Your task to perform on an android device: Add "razer huntsman" to the cart on amazon Image 0: 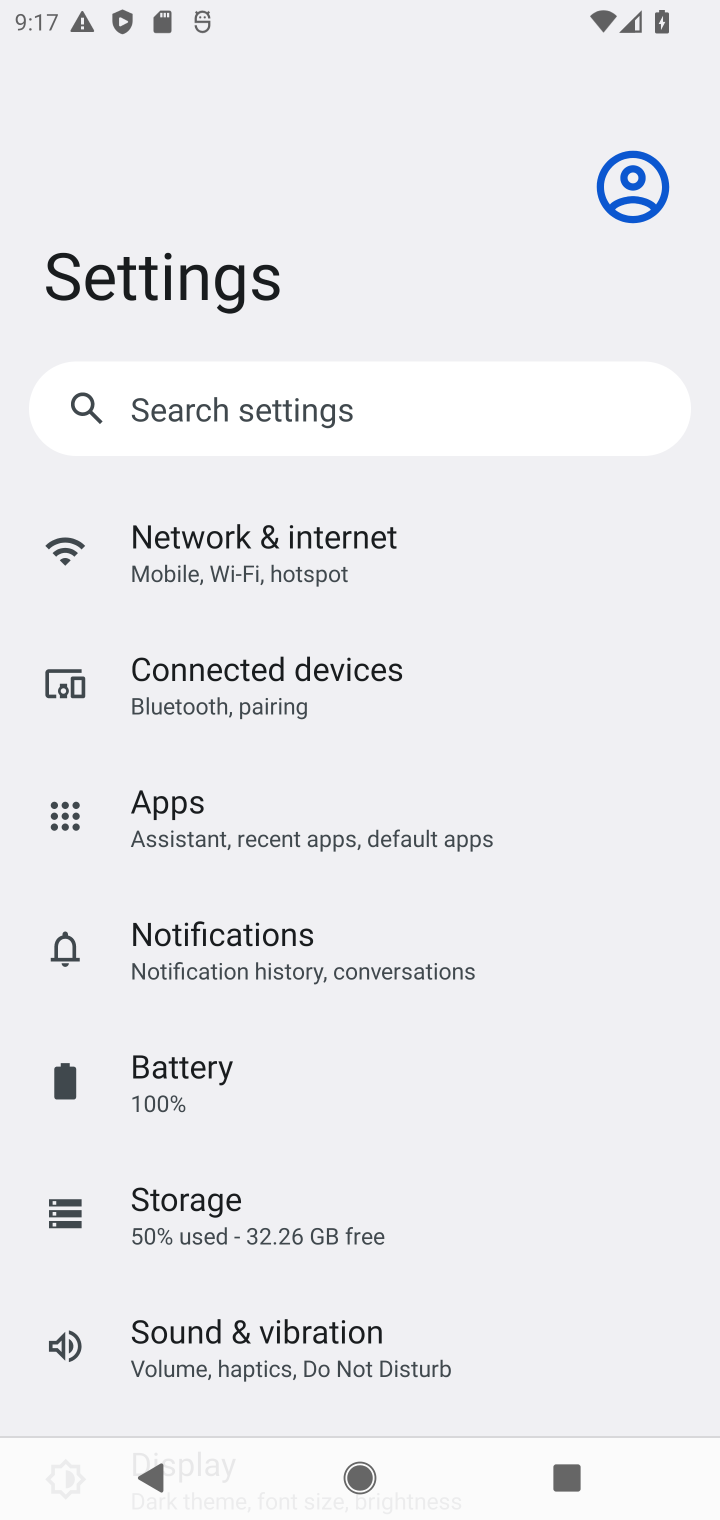
Step 0: press home button
Your task to perform on an android device: Add "razer huntsman" to the cart on amazon Image 1: 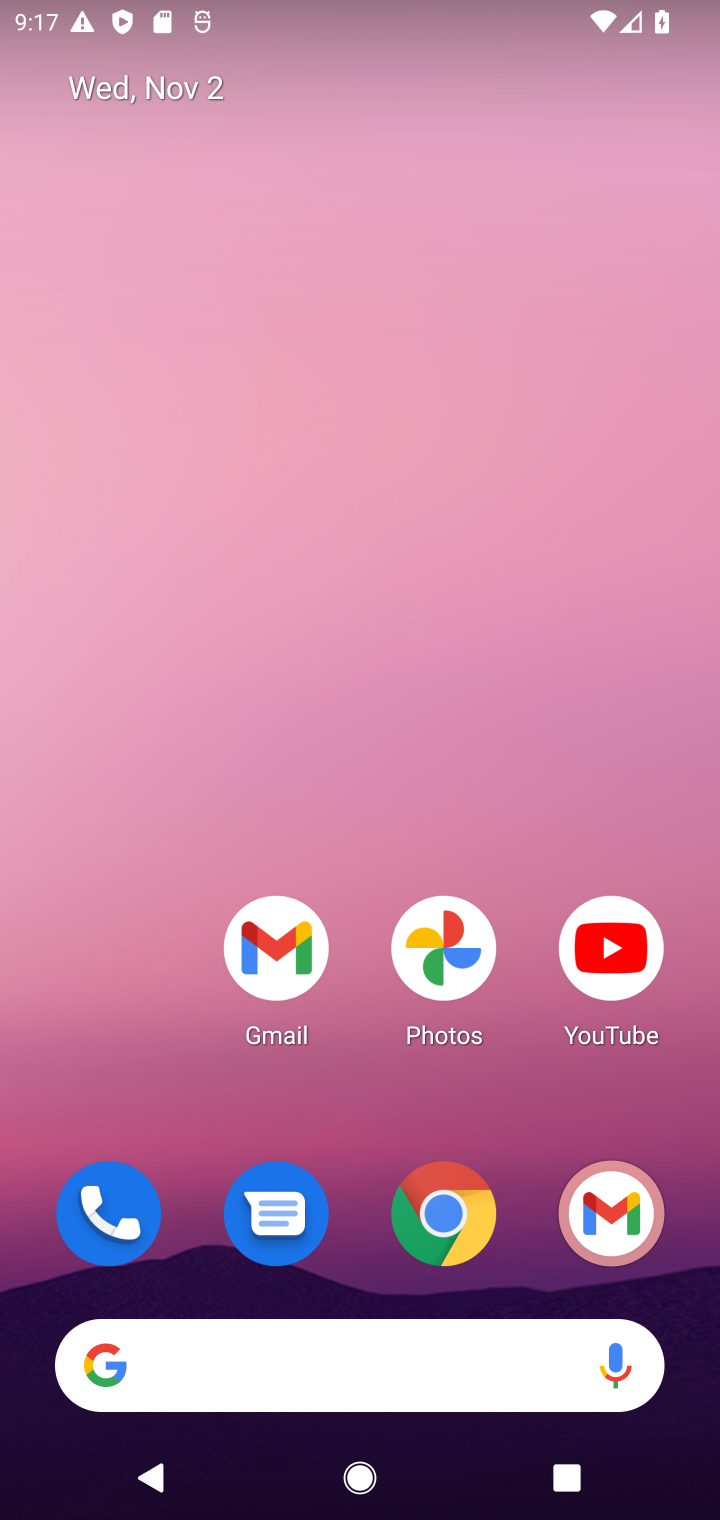
Step 1: click (422, 1237)
Your task to perform on an android device: Add "razer huntsman" to the cart on amazon Image 2: 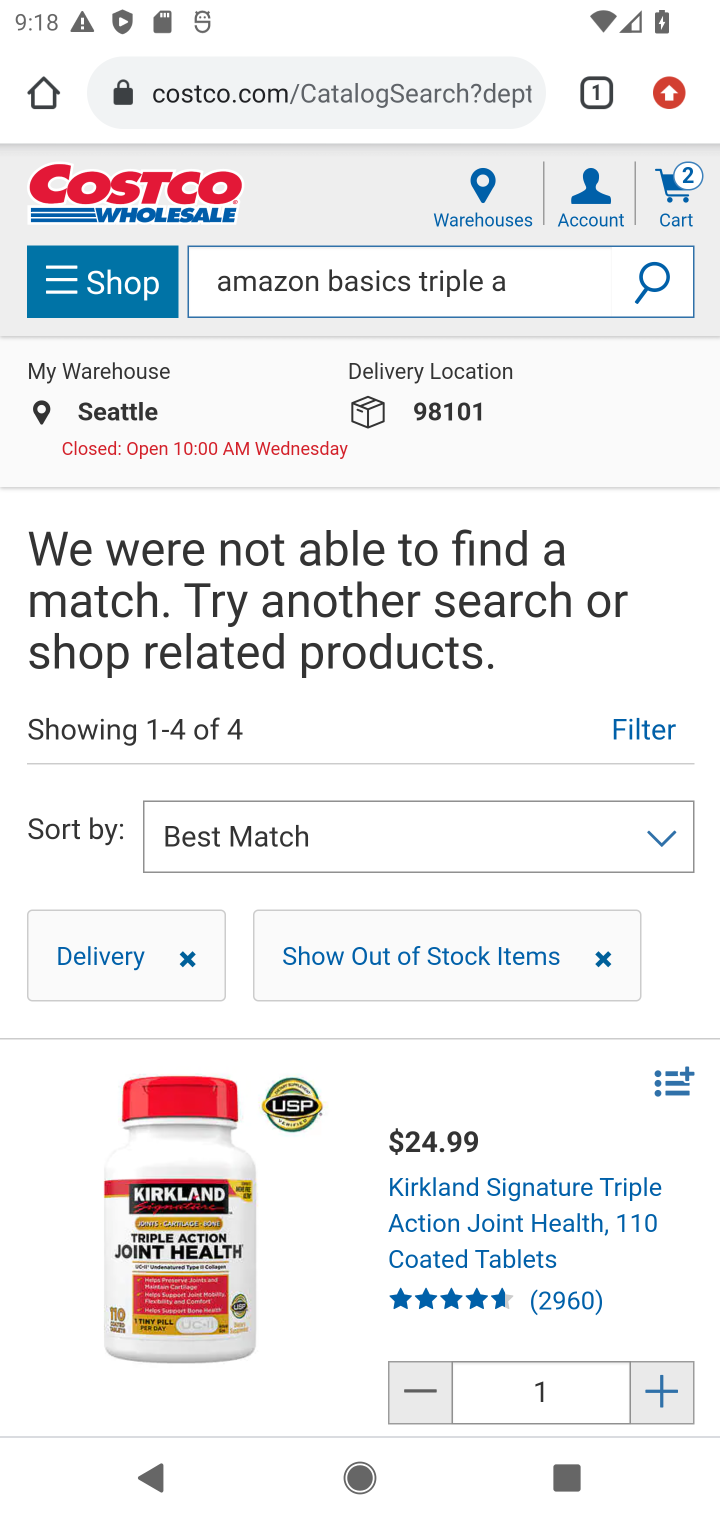
Step 2: click (296, 108)
Your task to perform on an android device: Add "razer huntsman" to the cart on amazon Image 3: 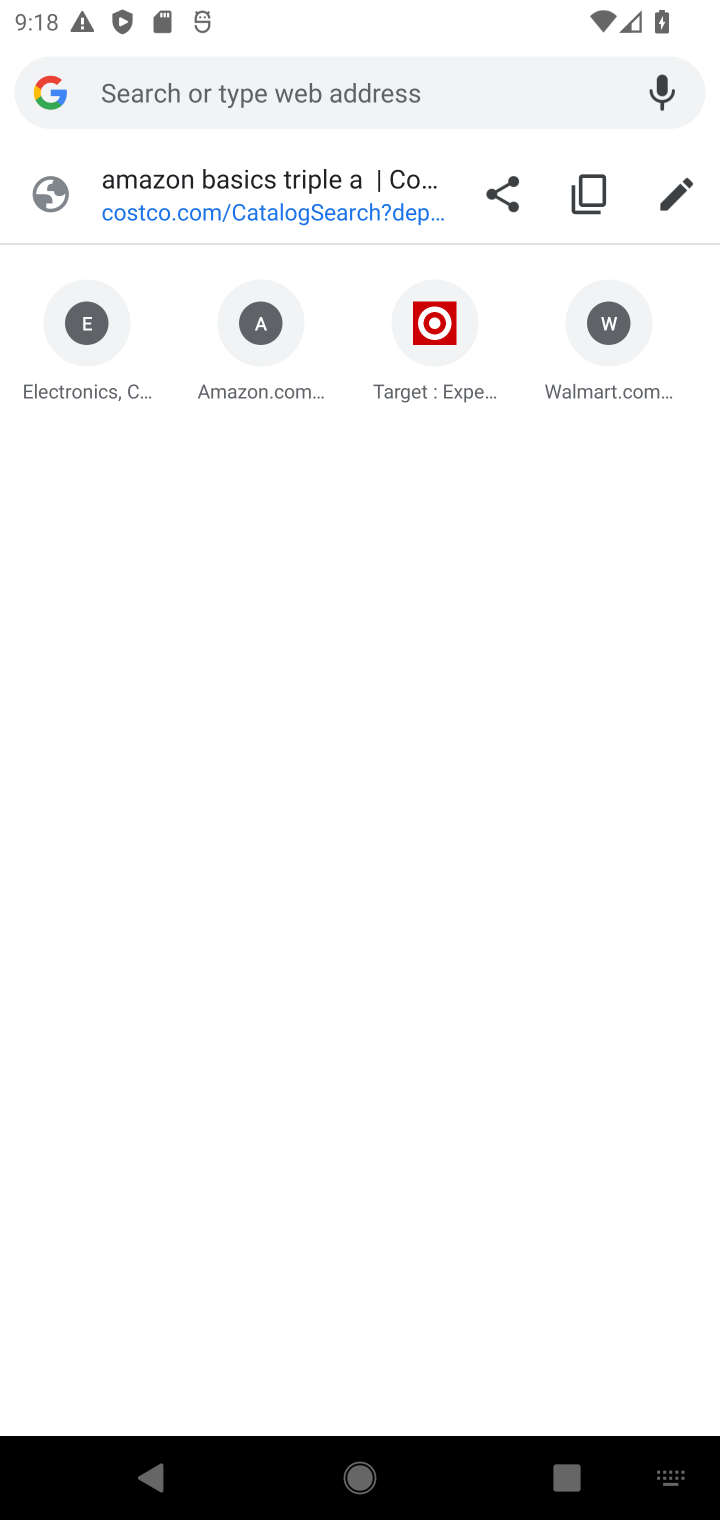
Step 3: click (252, 321)
Your task to perform on an android device: Add "razer huntsman" to the cart on amazon Image 4: 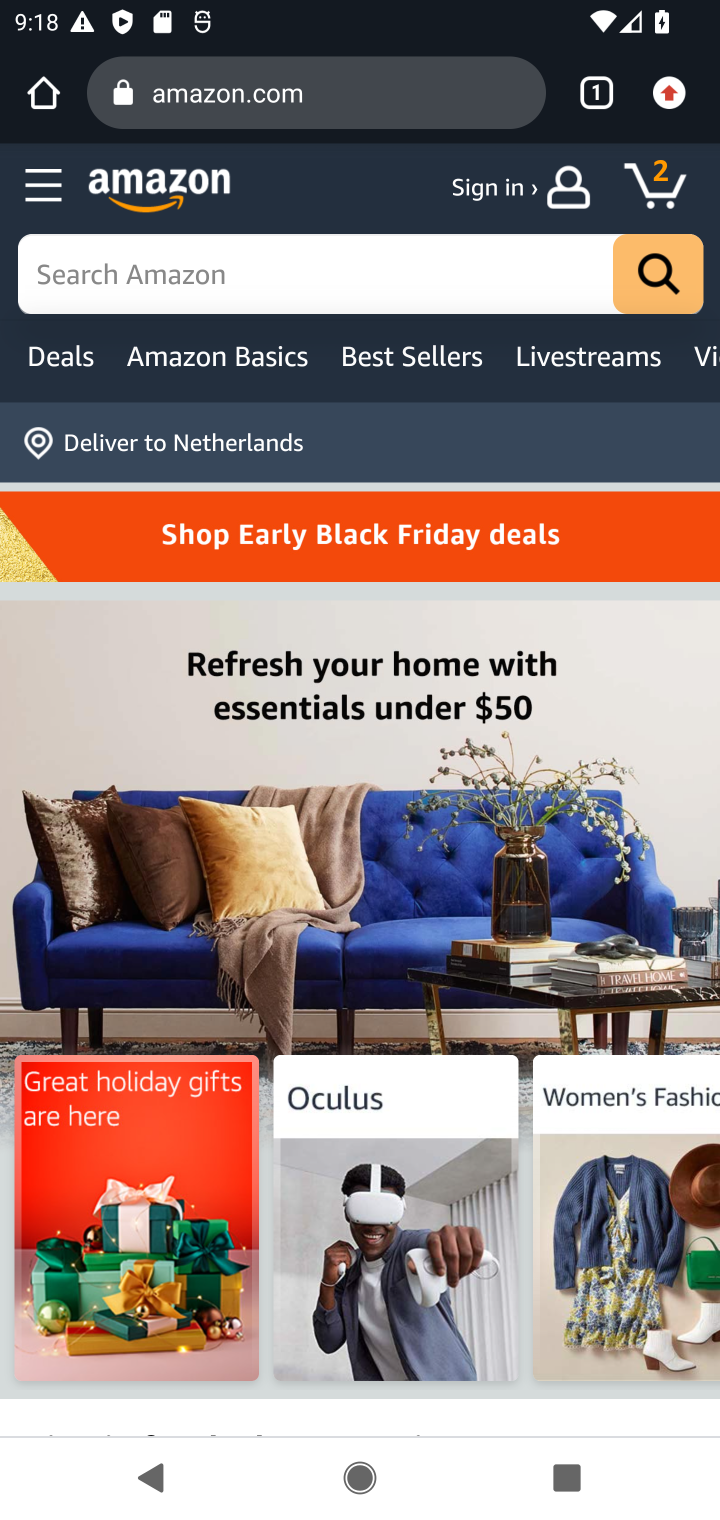
Step 4: click (199, 280)
Your task to perform on an android device: Add "razer huntsman" to the cart on amazon Image 5: 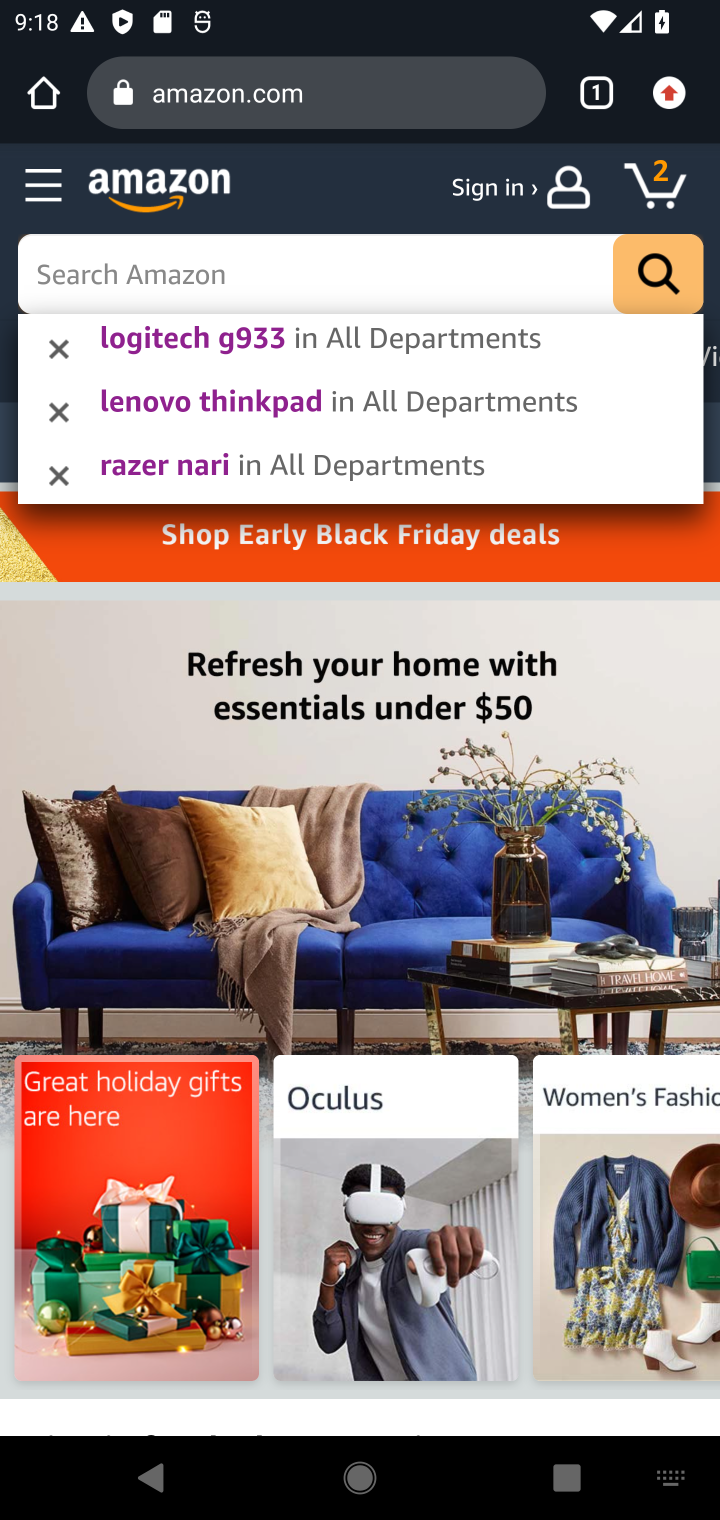
Step 5: type "razer huntsman"
Your task to perform on an android device: Add "razer huntsman" to the cart on amazon Image 6: 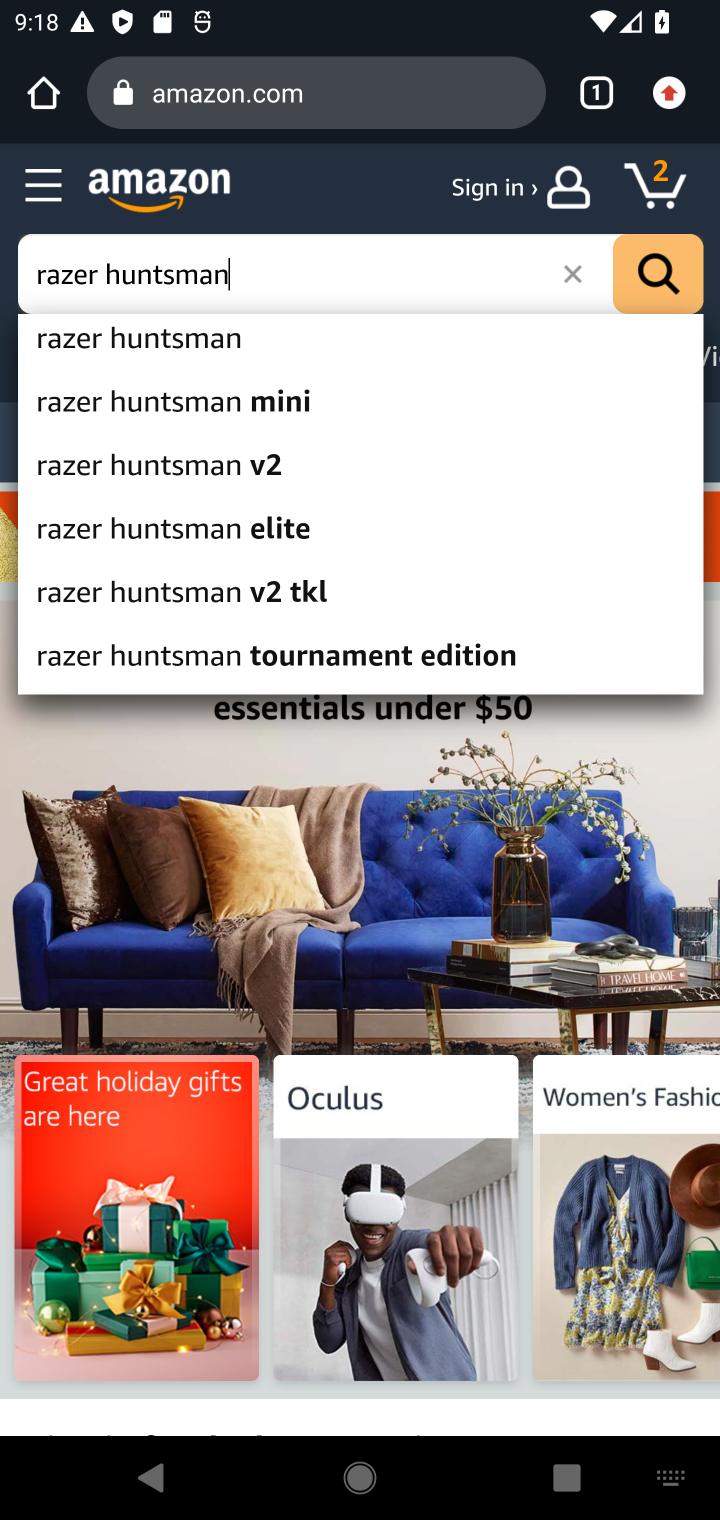
Step 6: click (193, 347)
Your task to perform on an android device: Add "razer huntsman" to the cart on amazon Image 7: 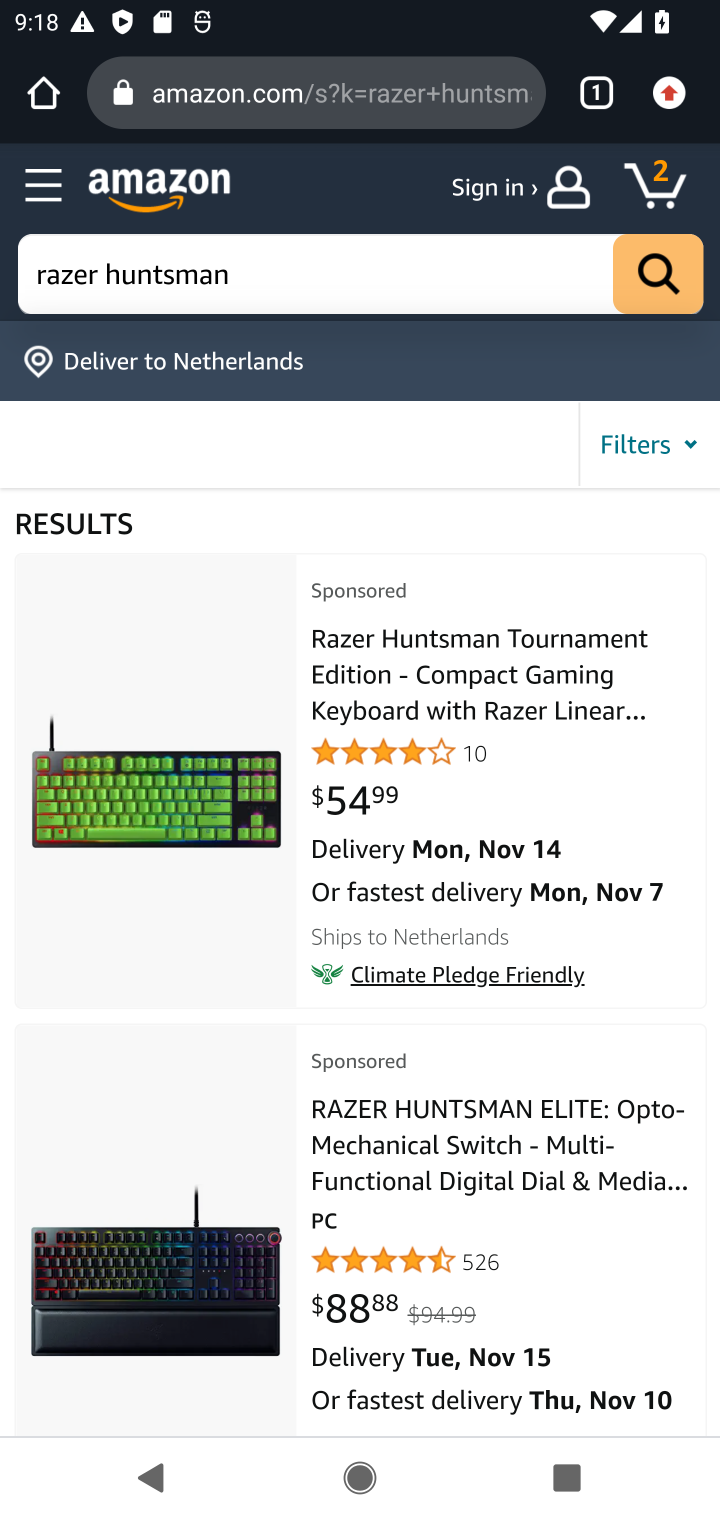
Step 7: click (283, 839)
Your task to perform on an android device: Add "razer huntsman" to the cart on amazon Image 8: 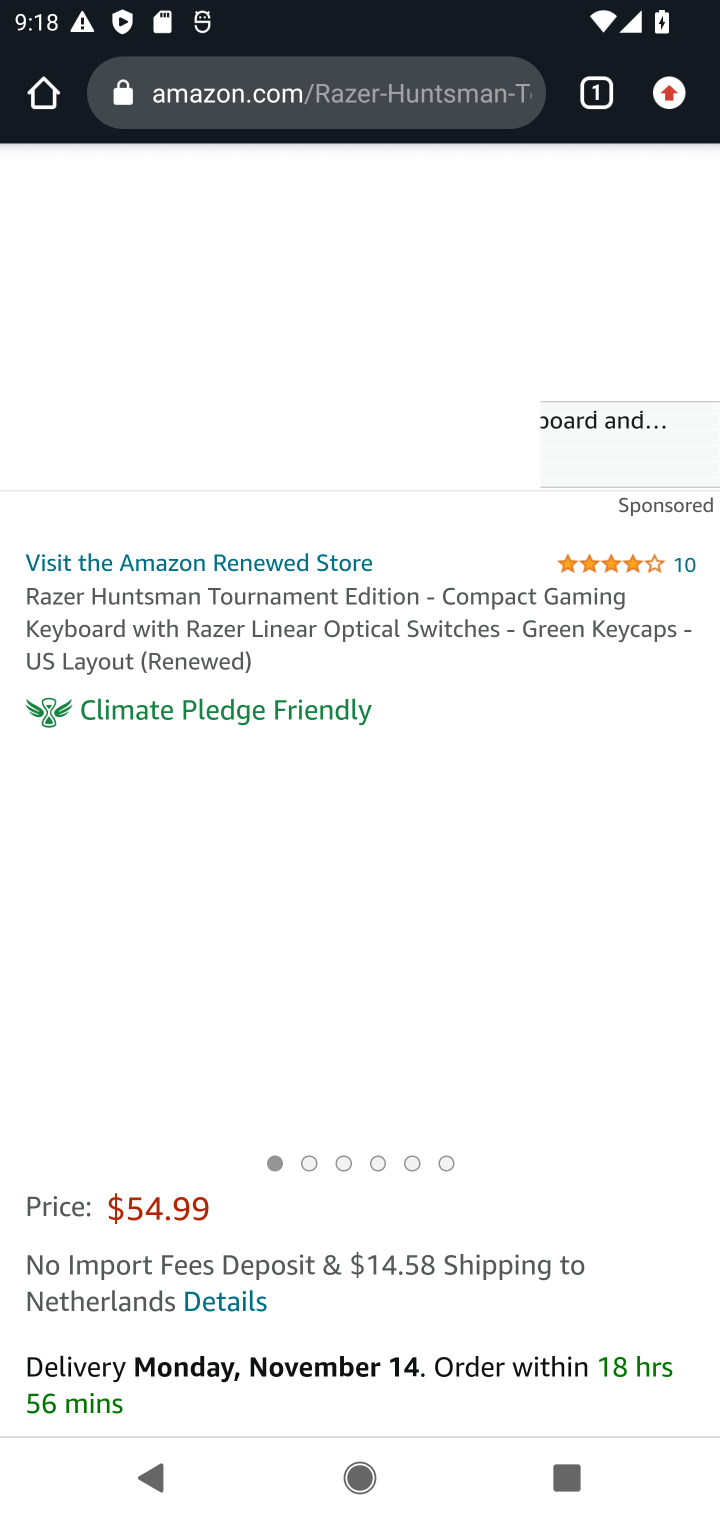
Step 8: drag from (446, 1154) to (456, 644)
Your task to perform on an android device: Add "razer huntsman" to the cart on amazon Image 9: 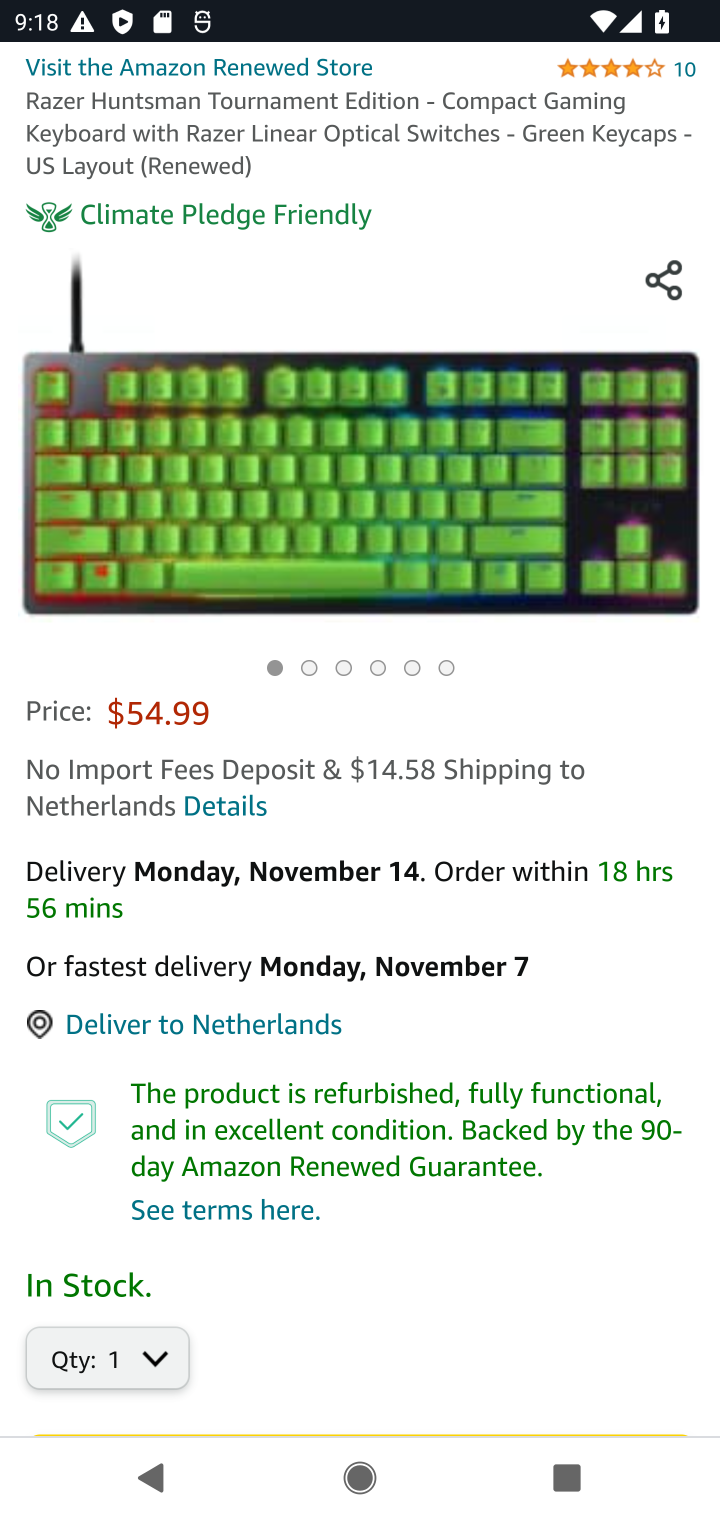
Step 9: drag from (382, 1071) to (426, 648)
Your task to perform on an android device: Add "razer huntsman" to the cart on amazon Image 10: 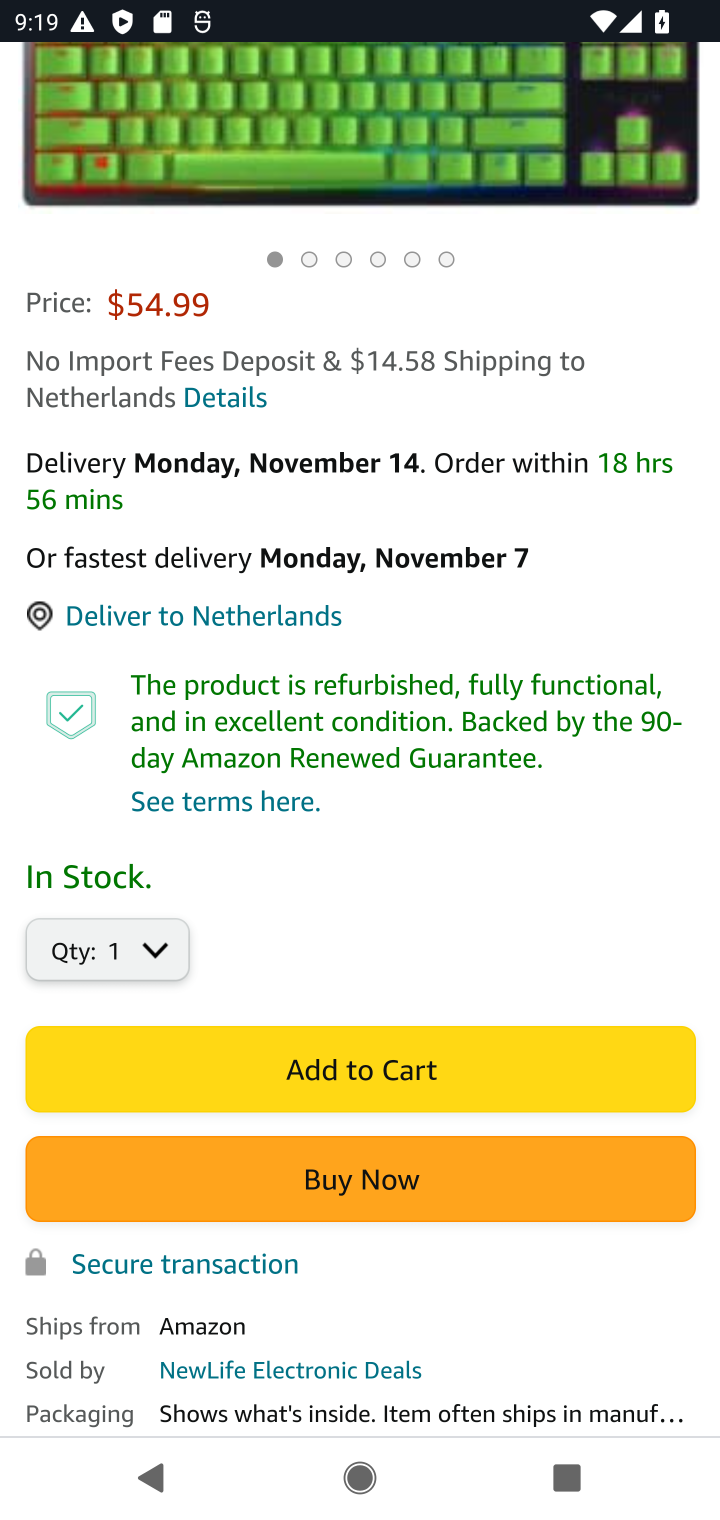
Step 10: click (379, 1061)
Your task to perform on an android device: Add "razer huntsman" to the cart on amazon Image 11: 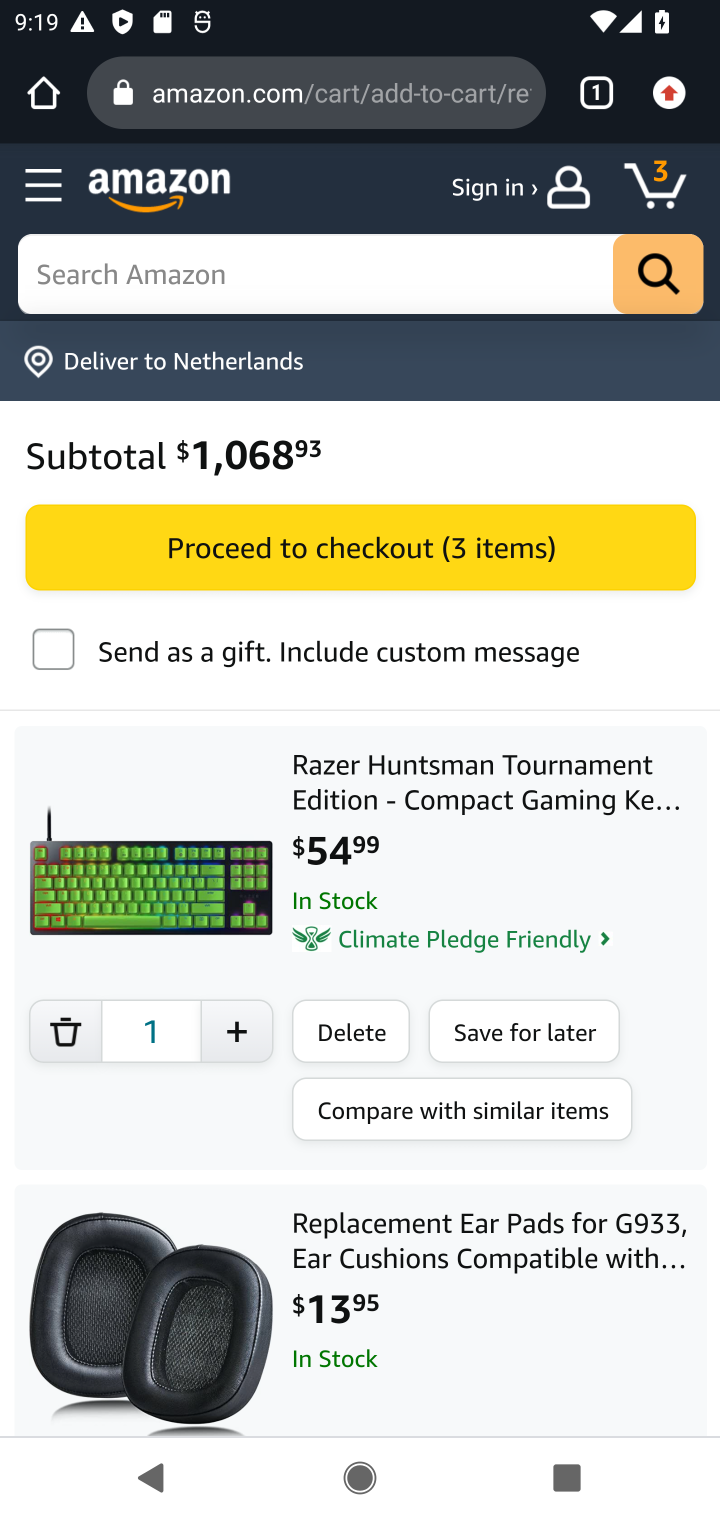
Step 11: task complete